Your task to perform on an android device: Open my contact list Image 0: 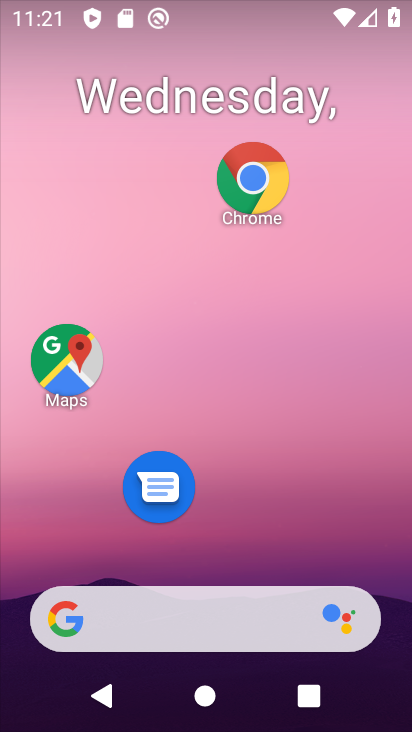
Step 0: drag from (267, 393) to (253, 53)
Your task to perform on an android device: Open my contact list Image 1: 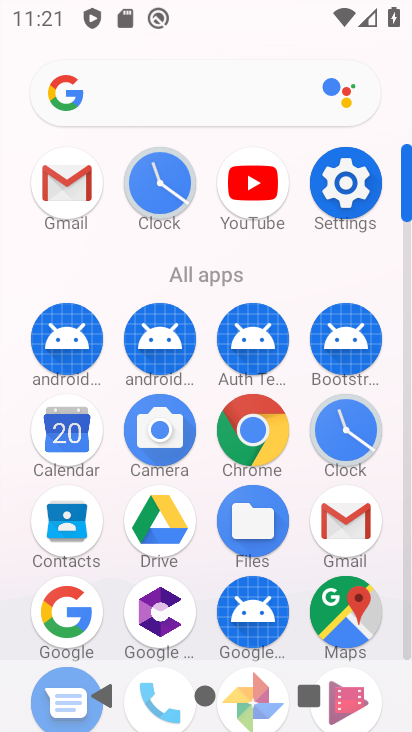
Step 1: click (90, 497)
Your task to perform on an android device: Open my contact list Image 2: 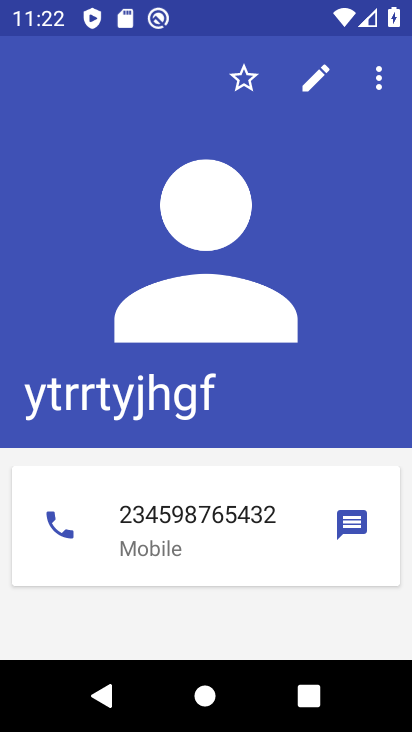
Step 2: task complete